Your task to perform on an android device: Search for seafood restaurants on Google Maps Image 0: 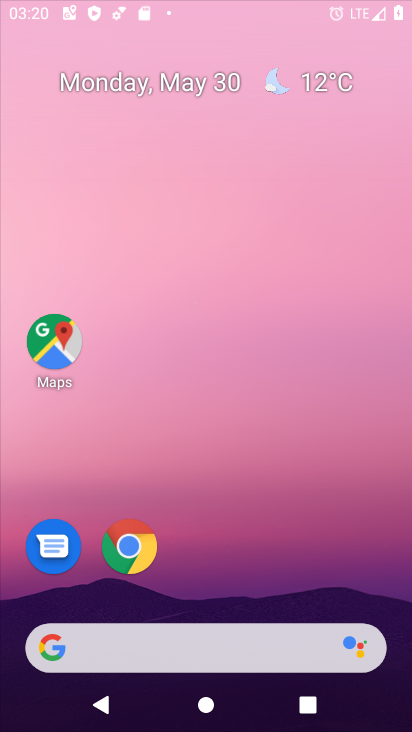
Step 0: press home button
Your task to perform on an android device: Search for seafood restaurants on Google Maps Image 1: 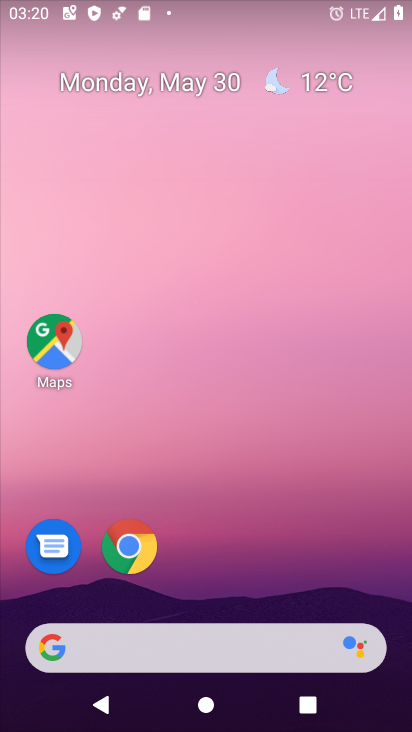
Step 1: click (52, 337)
Your task to perform on an android device: Search for seafood restaurants on Google Maps Image 2: 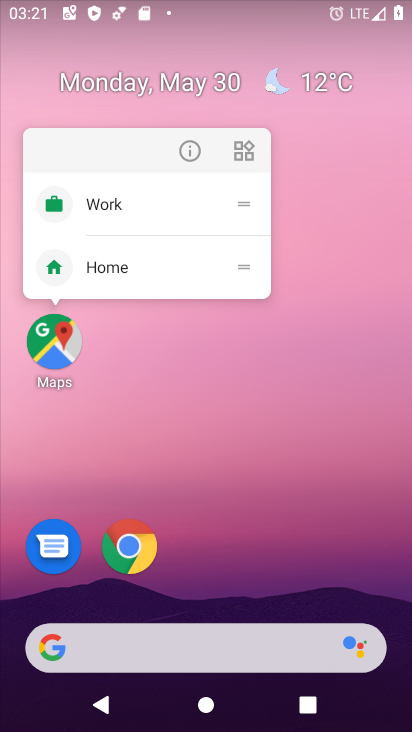
Step 2: click (57, 342)
Your task to perform on an android device: Search for seafood restaurants on Google Maps Image 3: 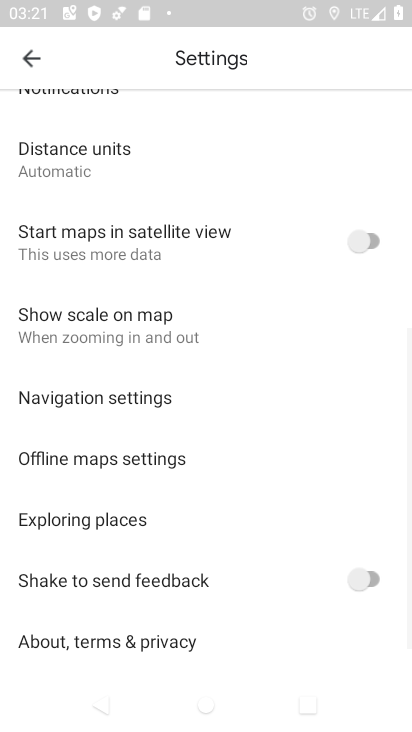
Step 3: click (27, 50)
Your task to perform on an android device: Search for seafood restaurants on Google Maps Image 4: 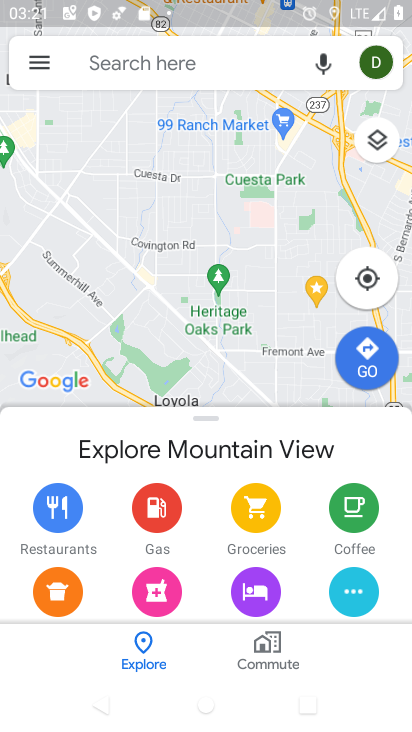
Step 4: click (123, 59)
Your task to perform on an android device: Search for seafood restaurants on Google Maps Image 5: 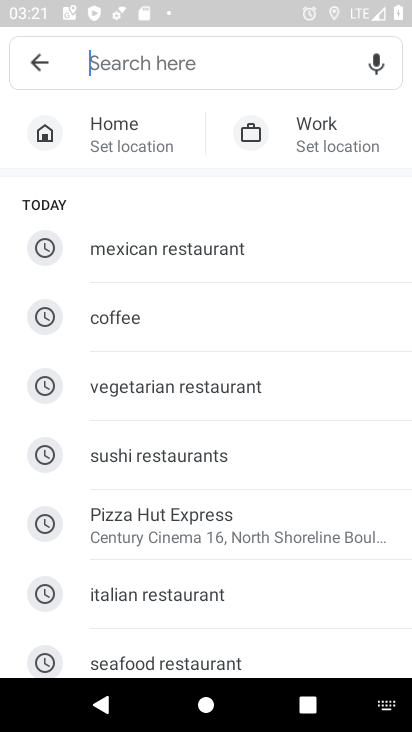
Step 5: click (170, 650)
Your task to perform on an android device: Search for seafood restaurants on Google Maps Image 6: 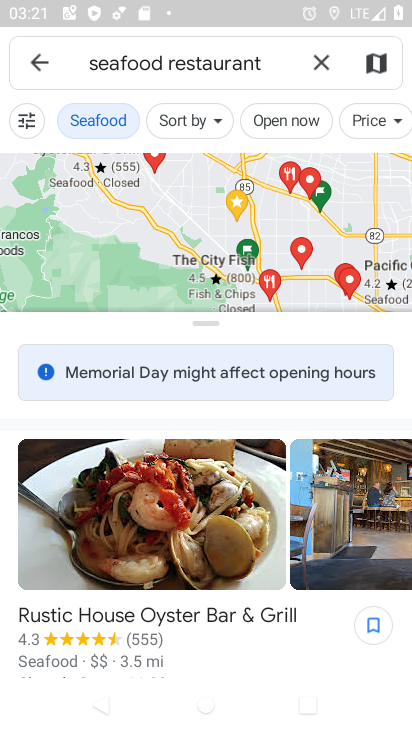
Step 6: drag from (256, 608) to (303, 270)
Your task to perform on an android device: Search for seafood restaurants on Google Maps Image 7: 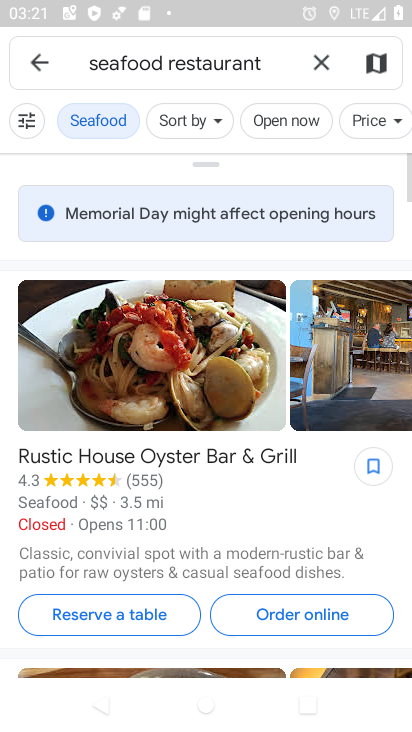
Step 7: drag from (218, 646) to (241, 363)
Your task to perform on an android device: Search for seafood restaurants on Google Maps Image 8: 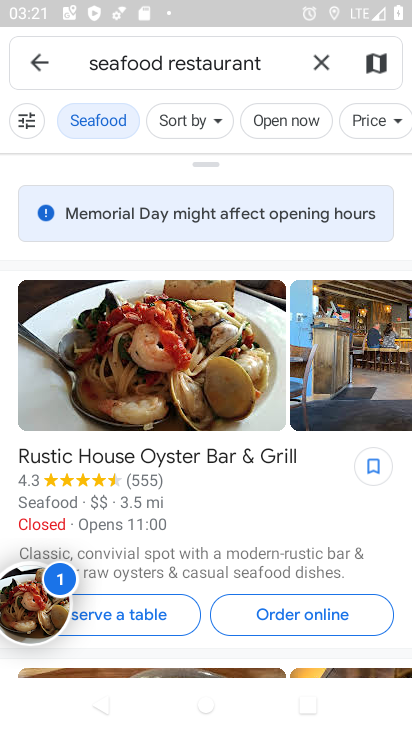
Step 8: drag from (34, 603) to (266, 676)
Your task to perform on an android device: Search for seafood restaurants on Google Maps Image 9: 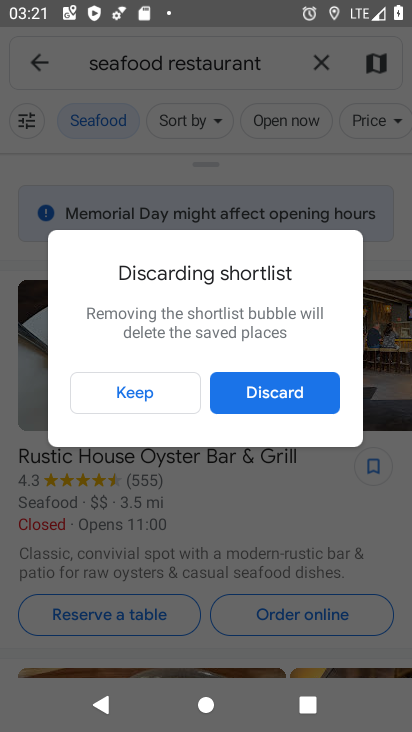
Step 9: click (262, 393)
Your task to perform on an android device: Search for seafood restaurants on Google Maps Image 10: 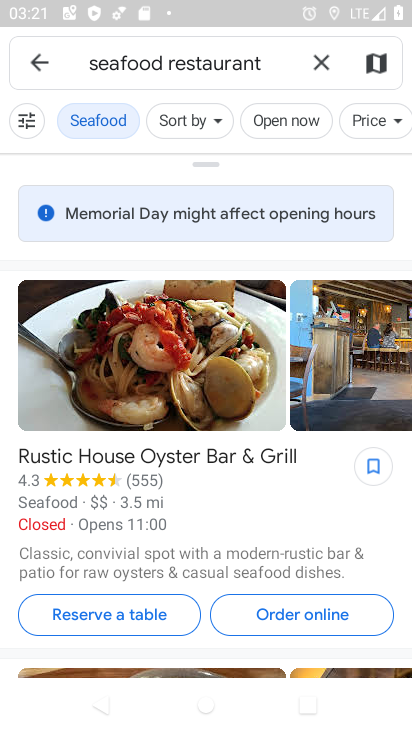
Step 10: task complete